Your task to perform on an android device: check data usage Image 0: 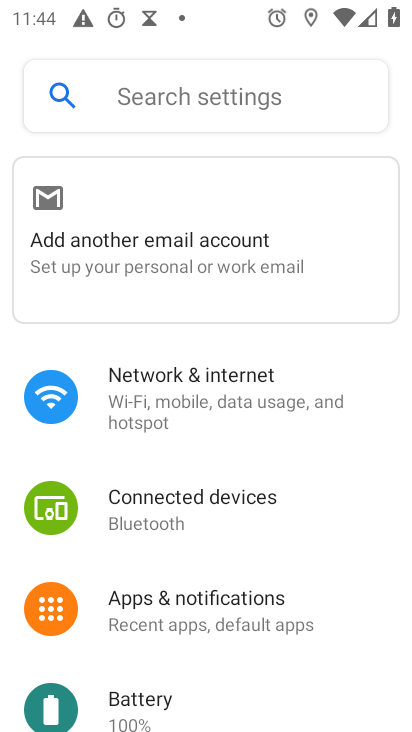
Step 0: click (205, 400)
Your task to perform on an android device: check data usage Image 1: 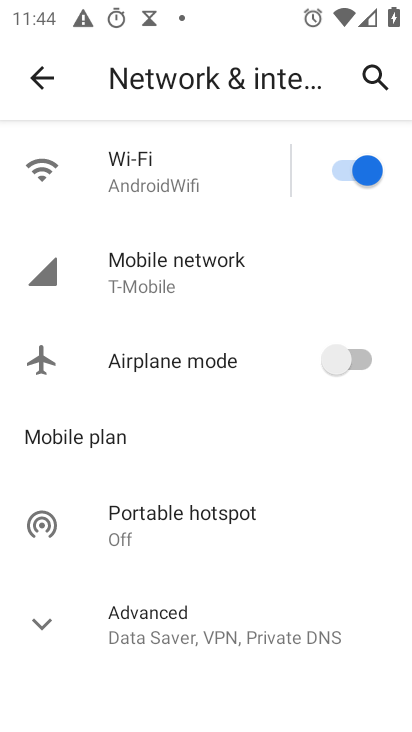
Step 1: click (143, 180)
Your task to perform on an android device: check data usage Image 2: 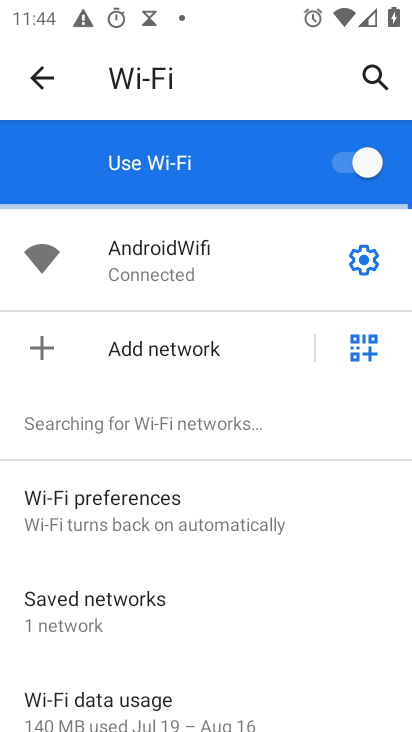
Step 2: drag from (242, 662) to (290, 218)
Your task to perform on an android device: check data usage Image 3: 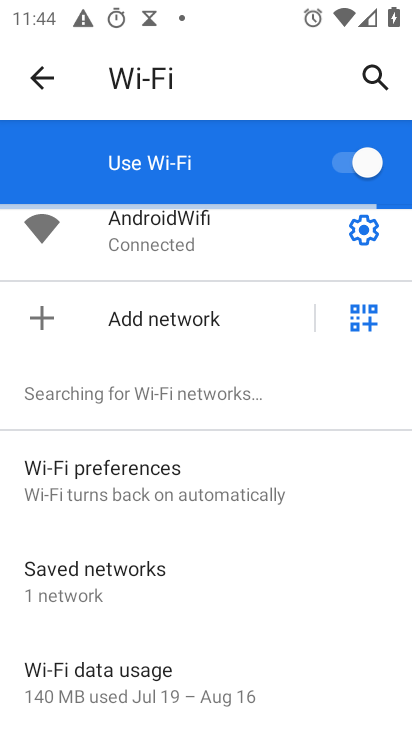
Step 3: click (99, 682)
Your task to perform on an android device: check data usage Image 4: 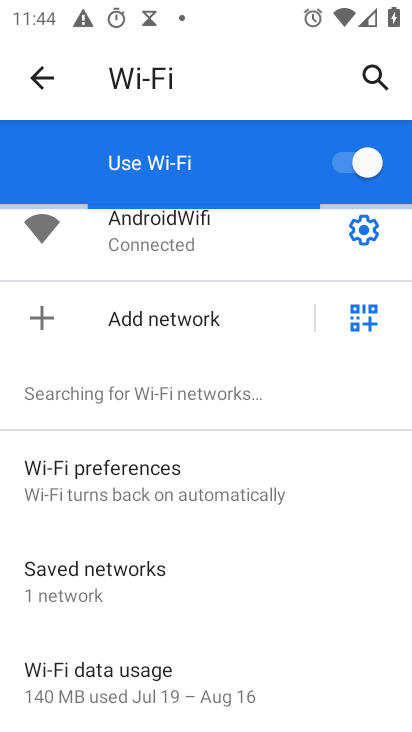
Step 4: click (154, 671)
Your task to perform on an android device: check data usage Image 5: 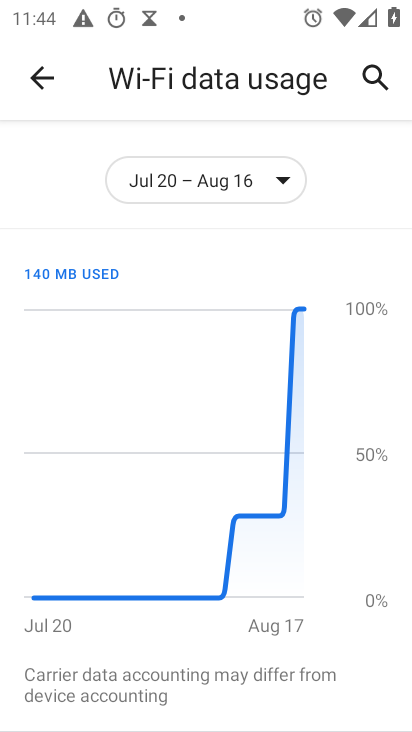
Step 5: task complete